Your task to perform on an android device: Open Android settings Image 0: 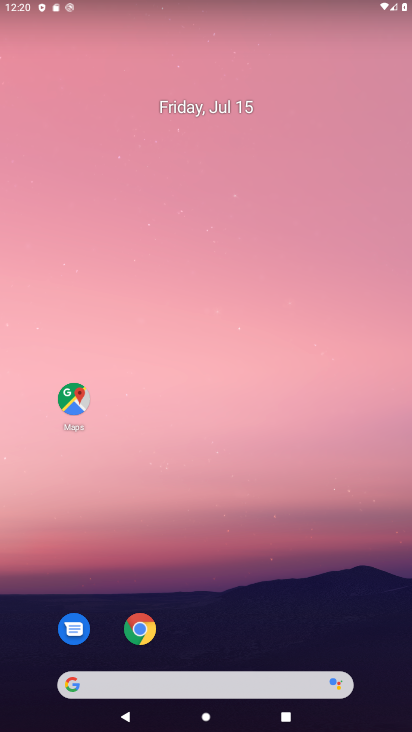
Step 0: drag from (338, 597) to (256, 20)
Your task to perform on an android device: Open Android settings Image 1: 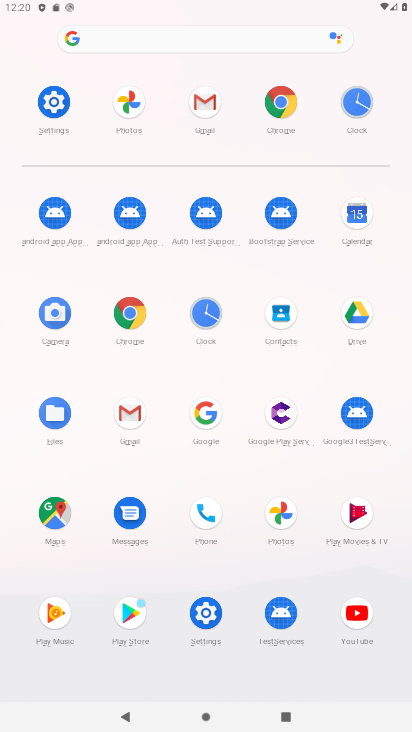
Step 1: click (56, 95)
Your task to perform on an android device: Open Android settings Image 2: 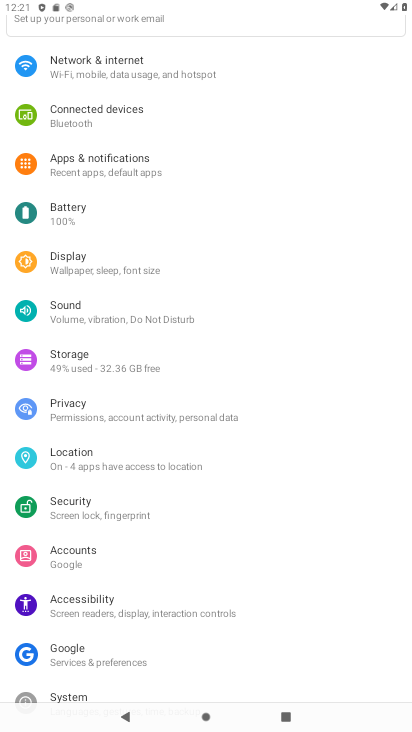
Step 2: task complete